Your task to perform on an android device: Set the phone to "Do not disturb". Image 0: 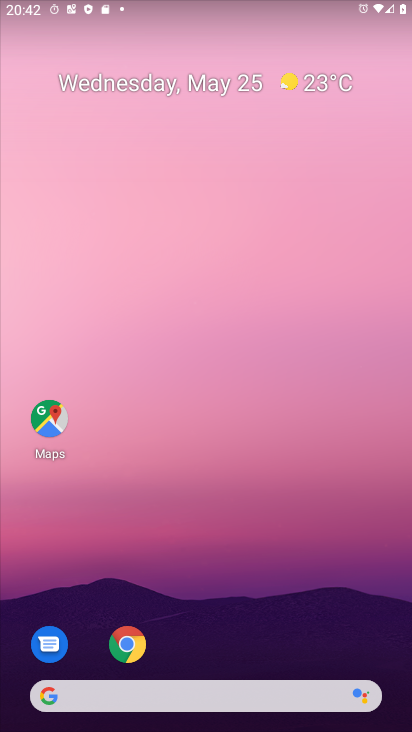
Step 0: drag from (276, 713) to (171, 25)
Your task to perform on an android device: Set the phone to "Do not disturb". Image 1: 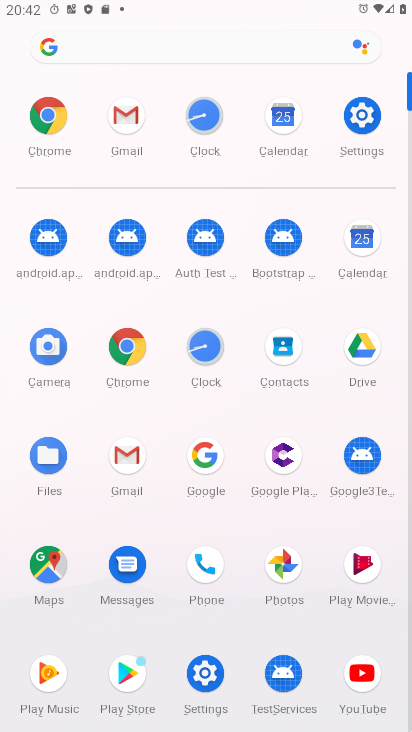
Step 1: click (366, 123)
Your task to perform on an android device: Set the phone to "Do not disturb". Image 2: 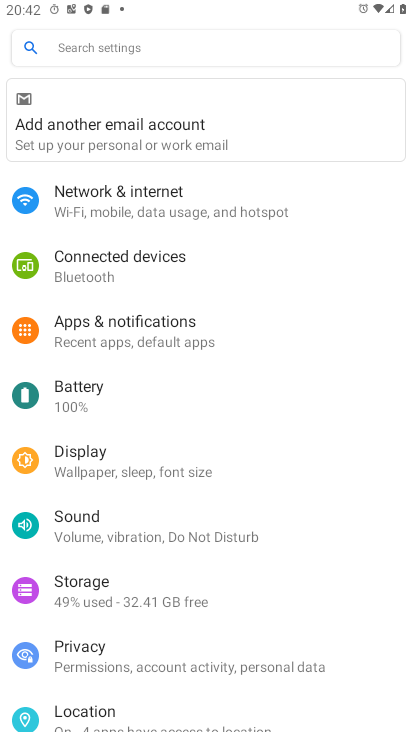
Step 2: click (127, 44)
Your task to perform on an android device: Set the phone to "Do not disturb". Image 3: 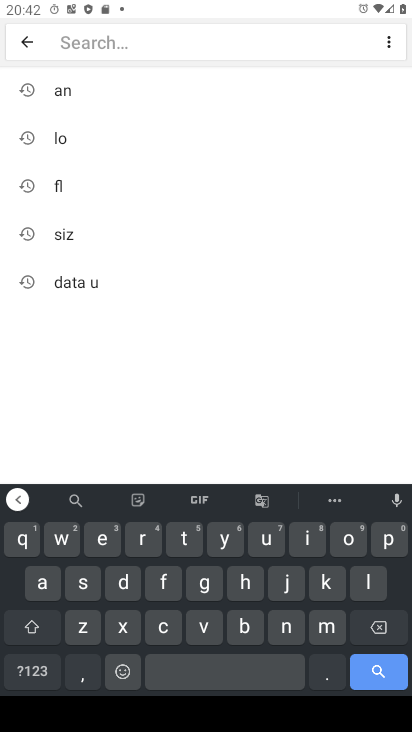
Step 3: click (125, 589)
Your task to perform on an android device: Set the phone to "Do not disturb". Image 4: 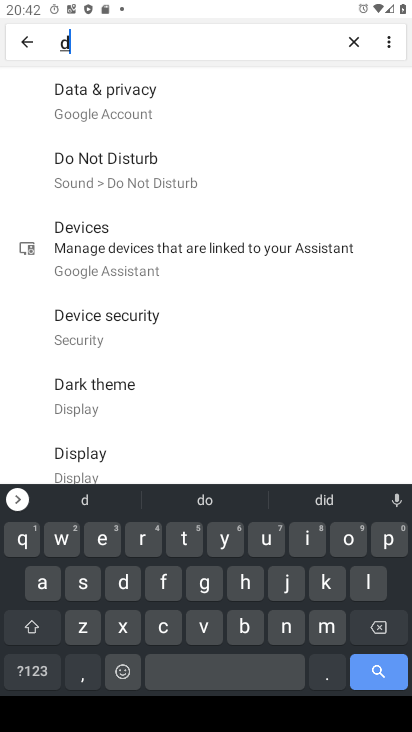
Step 4: click (282, 630)
Your task to perform on an android device: Set the phone to "Do not disturb". Image 5: 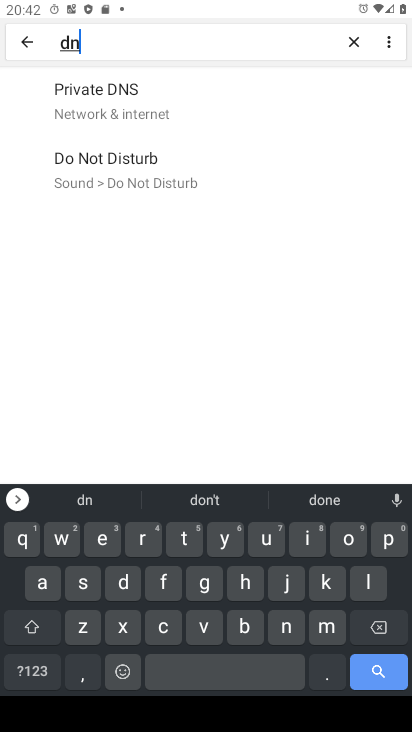
Step 5: click (111, 163)
Your task to perform on an android device: Set the phone to "Do not disturb". Image 6: 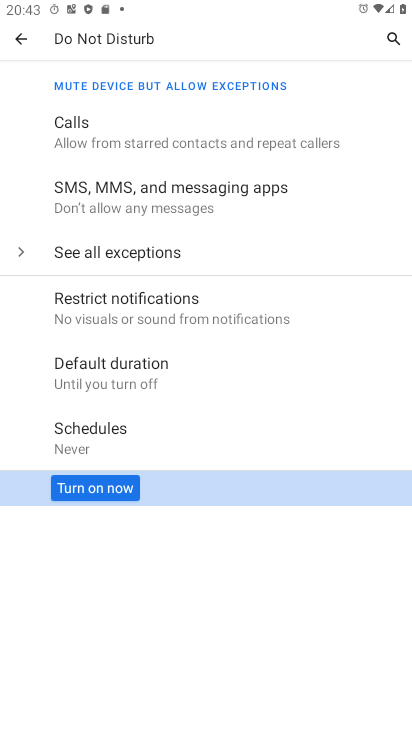
Step 6: click (103, 485)
Your task to perform on an android device: Set the phone to "Do not disturb". Image 7: 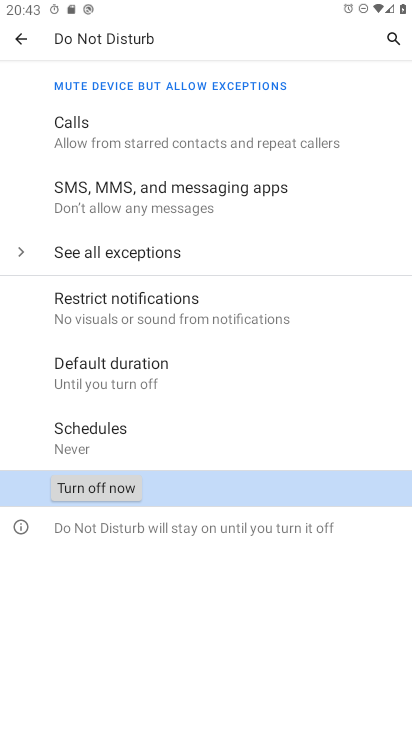
Step 7: task complete